Your task to perform on an android device: What's the weather going to be this weekend? Image 0: 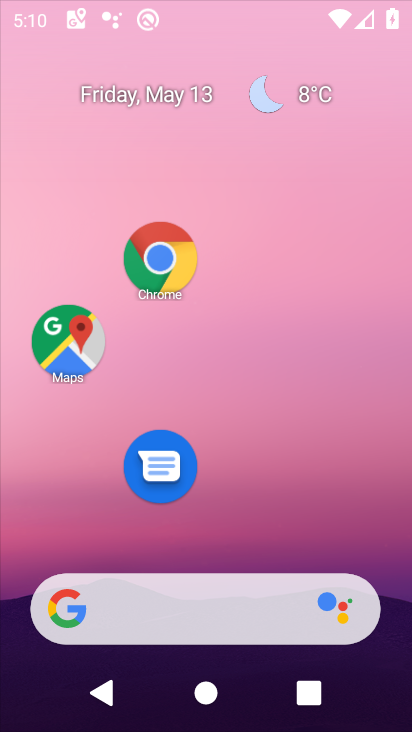
Step 0: drag from (44, 85) to (114, 151)
Your task to perform on an android device: What's the weather going to be this weekend? Image 1: 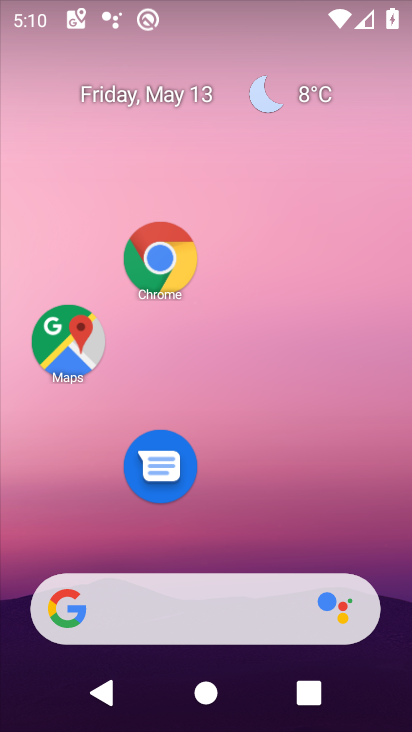
Step 1: drag from (315, 516) to (170, 80)
Your task to perform on an android device: What's the weather going to be this weekend? Image 2: 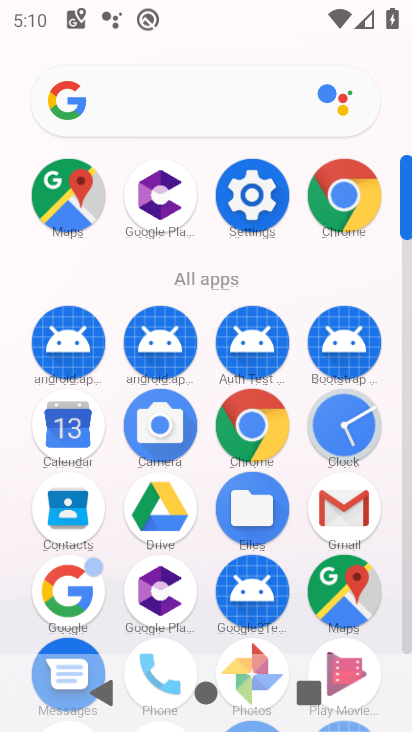
Step 2: press back button
Your task to perform on an android device: What's the weather going to be this weekend? Image 3: 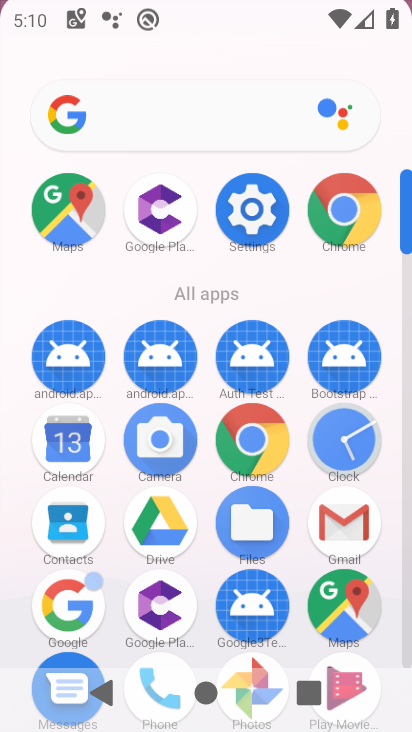
Step 3: press back button
Your task to perform on an android device: What's the weather going to be this weekend? Image 4: 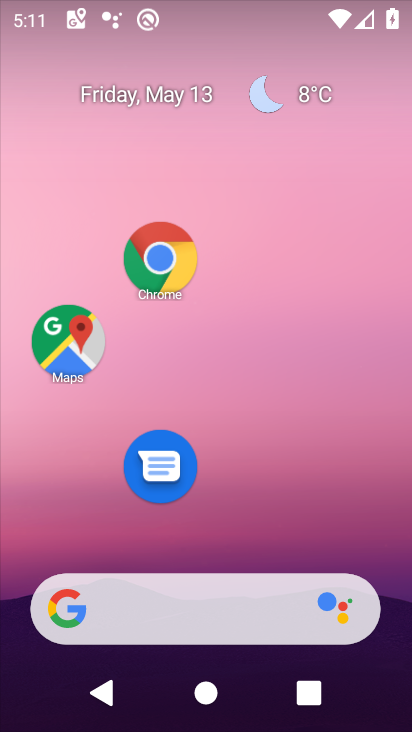
Step 4: drag from (34, 225) to (355, 383)
Your task to perform on an android device: What's the weather going to be this weekend? Image 5: 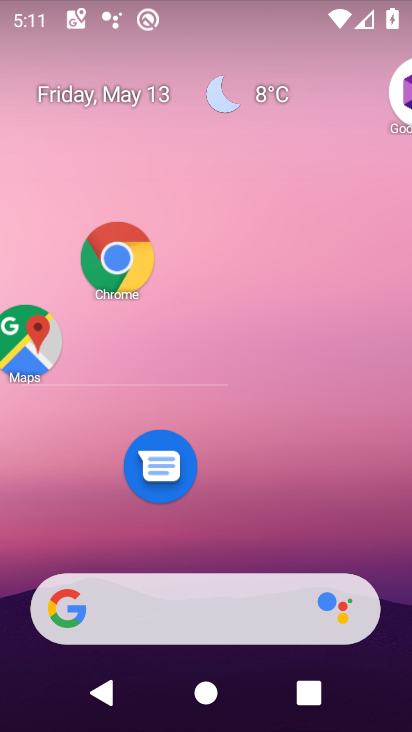
Step 5: drag from (15, 197) to (360, 336)
Your task to perform on an android device: What's the weather going to be this weekend? Image 6: 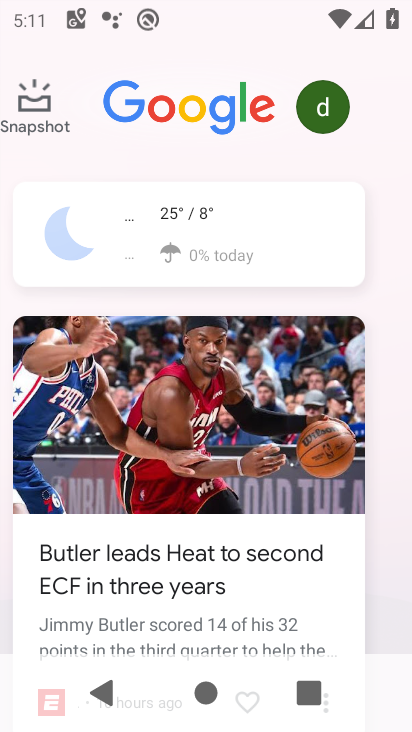
Step 6: drag from (381, 377) to (374, 292)
Your task to perform on an android device: What's the weather going to be this weekend? Image 7: 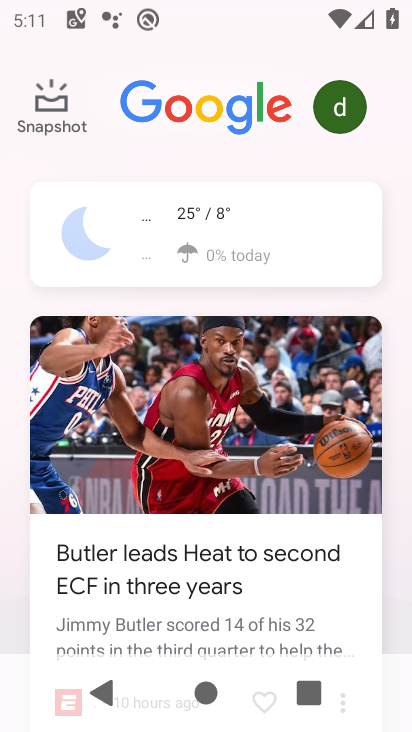
Step 7: drag from (24, 171) to (287, 332)
Your task to perform on an android device: What's the weather going to be this weekend? Image 8: 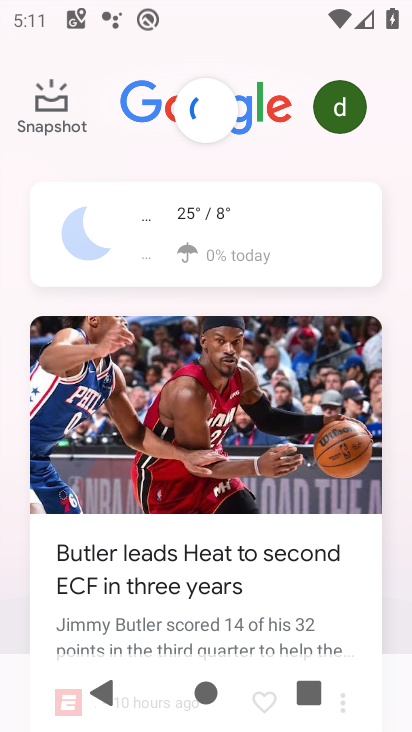
Step 8: click (175, 242)
Your task to perform on an android device: What's the weather going to be this weekend? Image 9: 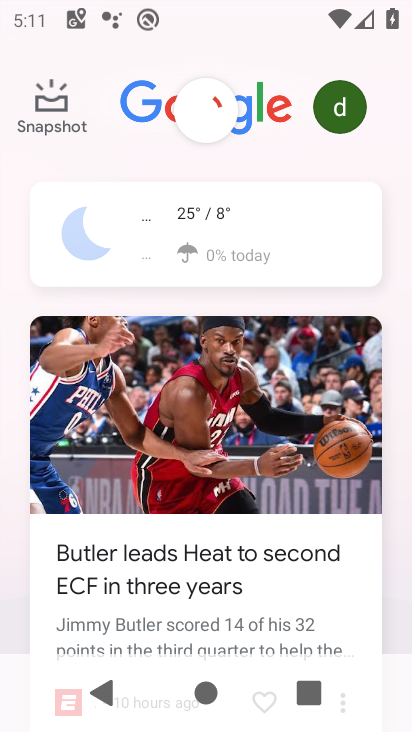
Step 9: click (166, 237)
Your task to perform on an android device: What's the weather going to be this weekend? Image 10: 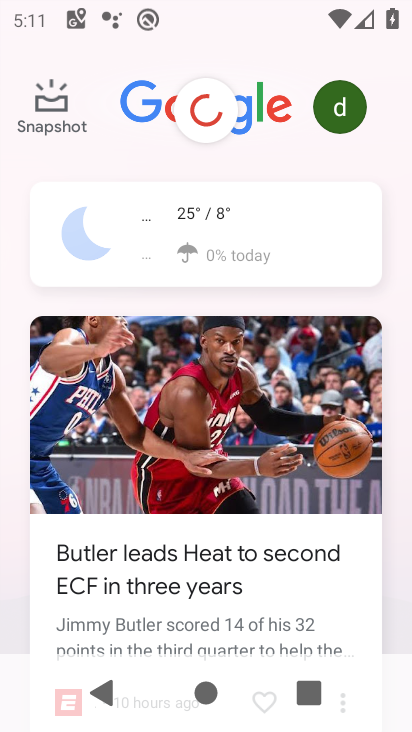
Step 10: click (166, 237)
Your task to perform on an android device: What's the weather going to be this weekend? Image 11: 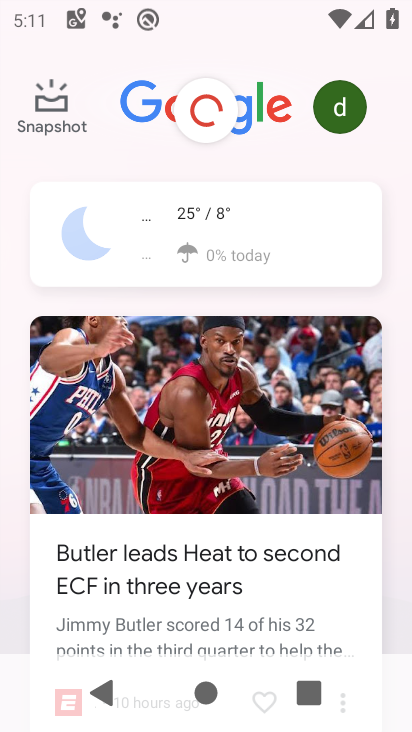
Step 11: click (169, 236)
Your task to perform on an android device: What's the weather going to be this weekend? Image 12: 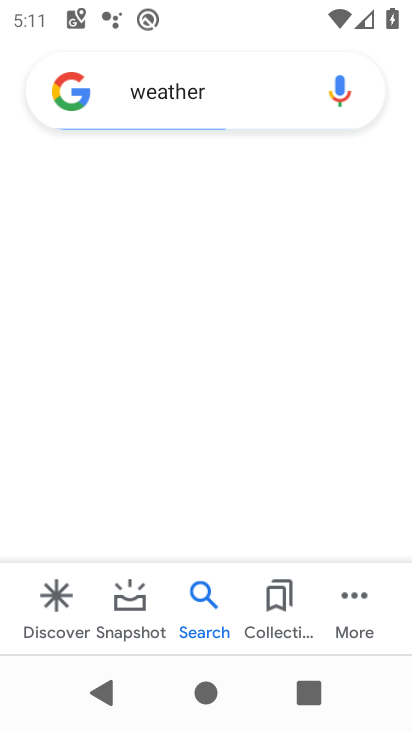
Step 12: click (179, 245)
Your task to perform on an android device: What's the weather going to be this weekend? Image 13: 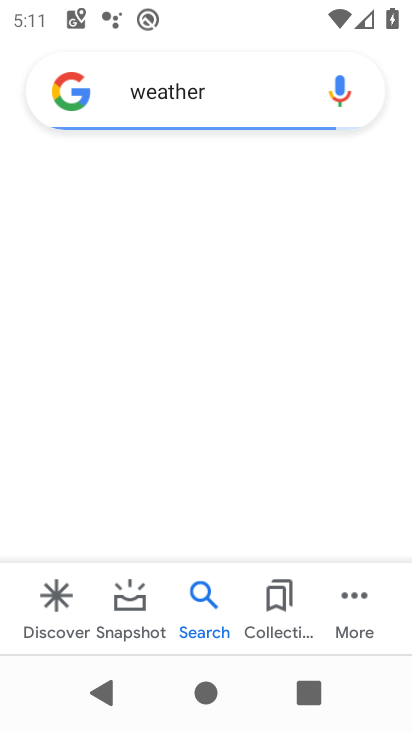
Step 13: click (183, 243)
Your task to perform on an android device: What's the weather going to be this weekend? Image 14: 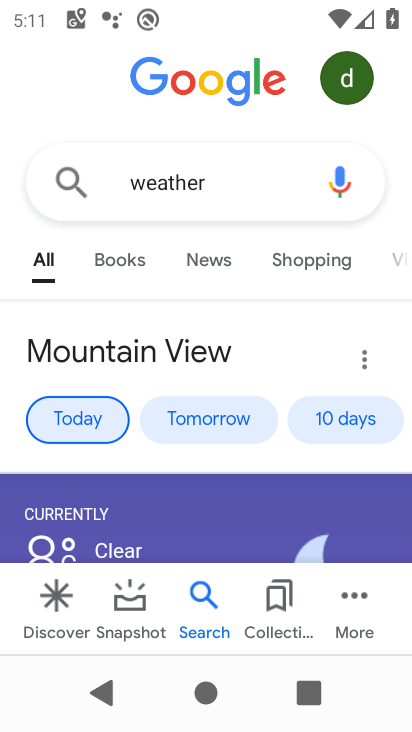
Step 14: drag from (211, 462) to (175, 206)
Your task to perform on an android device: What's the weather going to be this weekend? Image 15: 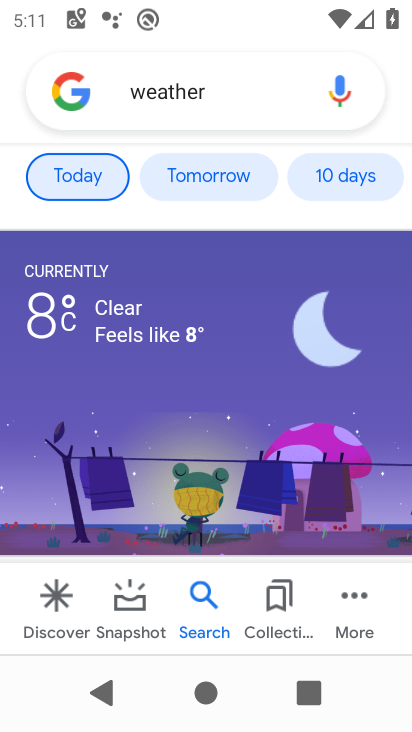
Step 15: click (332, 171)
Your task to perform on an android device: What's the weather going to be this weekend? Image 16: 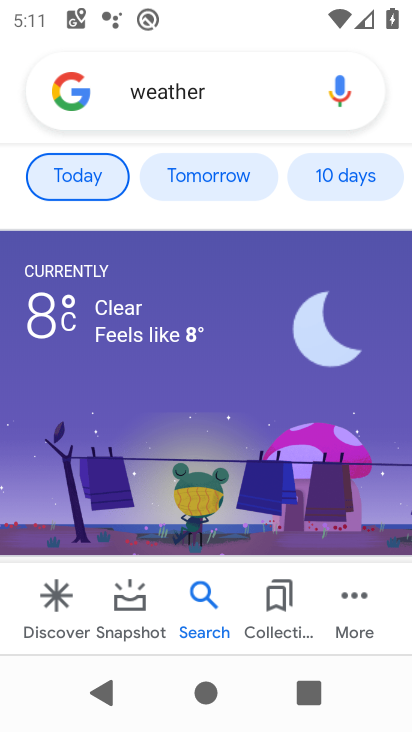
Step 16: click (331, 169)
Your task to perform on an android device: What's the weather going to be this weekend? Image 17: 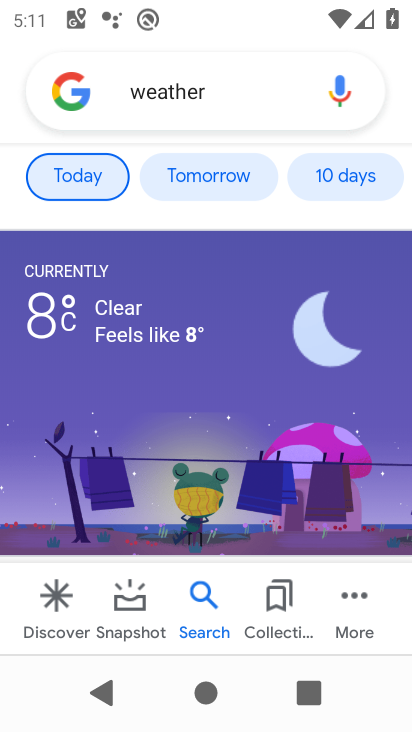
Step 17: click (331, 171)
Your task to perform on an android device: What's the weather going to be this weekend? Image 18: 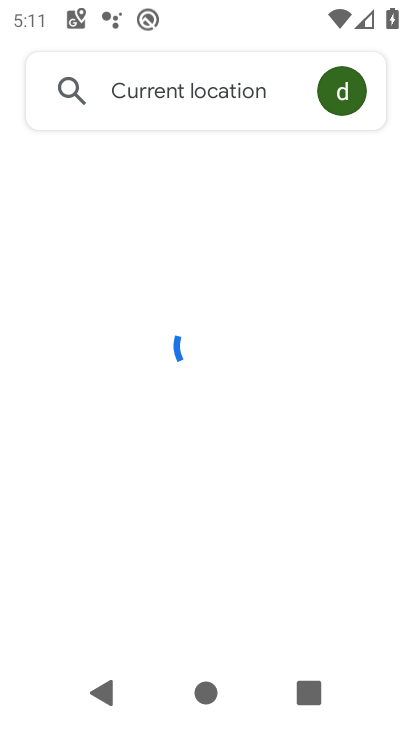
Step 18: click (337, 170)
Your task to perform on an android device: What's the weather going to be this weekend? Image 19: 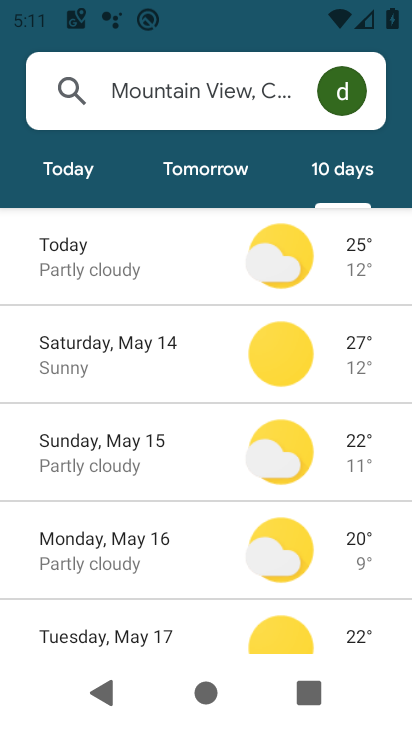
Step 19: task complete